Your task to perform on an android device: turn on javascript in the chrome app Image 0: 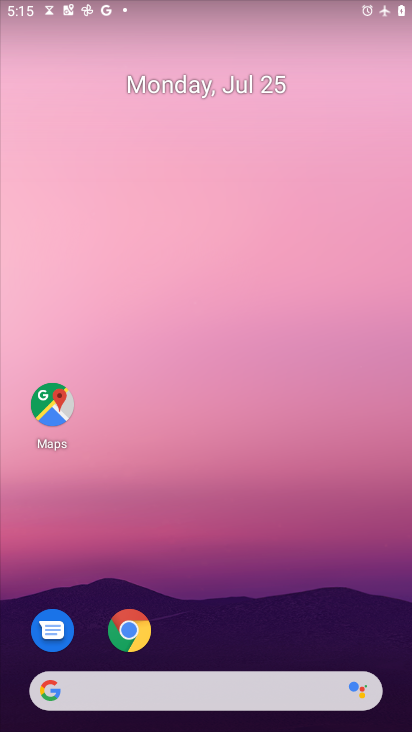
Step 0: click (130, 631)
Your task to perform on an android device: turn on javascript in the chrome app Image 1: 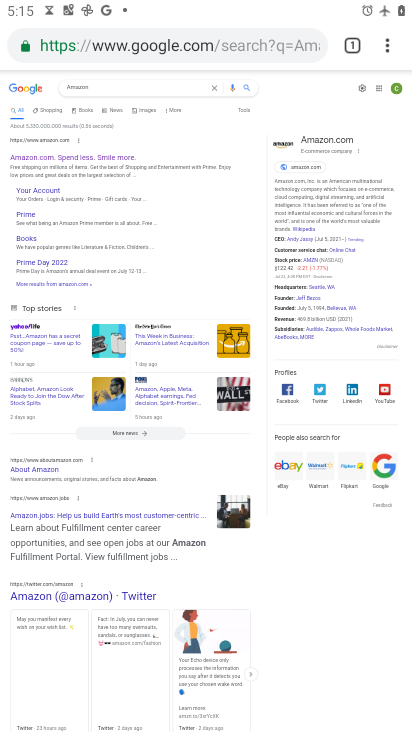
Step 1: click (387, 49)
Your task to perform on an android device: turn on javascript in the chrome app Image 2: 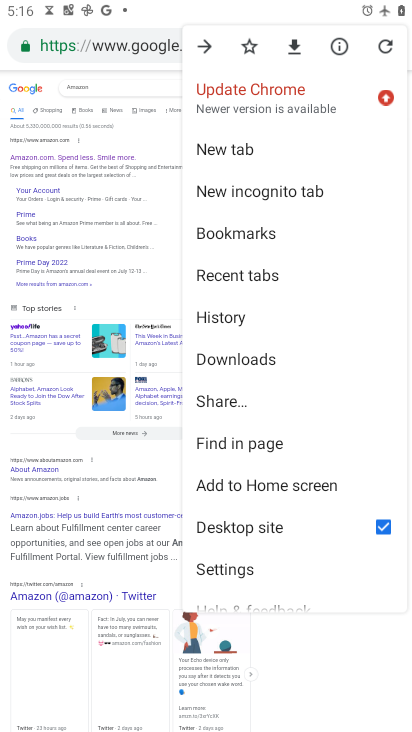
Step 2: click (229, 568)
Your task to perform on an android device: turn on javascript in the chrome app Image 3: 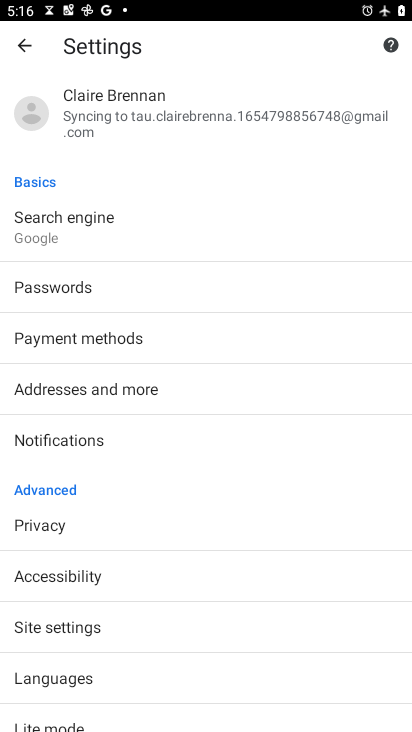
Step 3: drag from (69, 600) to (112, 515)
Your task to perform on an android device: turn on javascript in the chrome app Image 4: 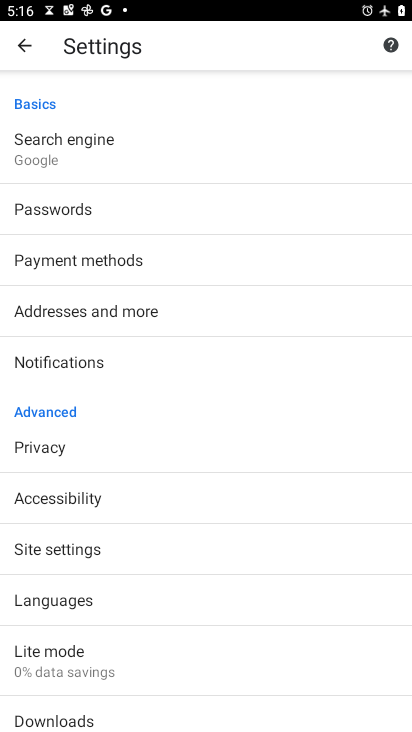
Step 4: click (69, 553)
Your task to perform on an android device: turn on javascript in the chrome app Image 5: 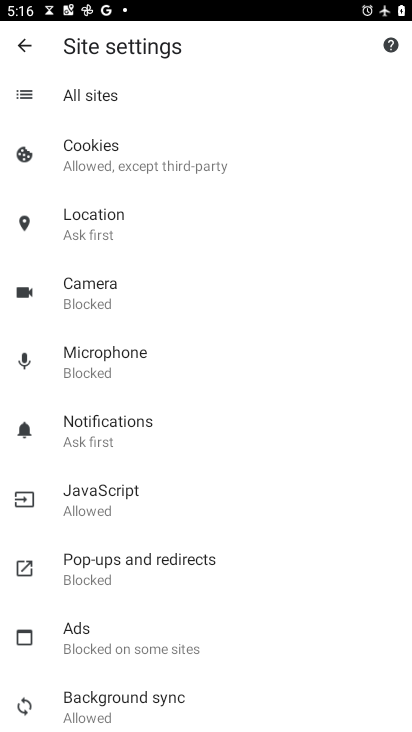
Step 5: click (110, 491)
Your task to perform on an android device: turn on javascript in the chrome app Image 6: 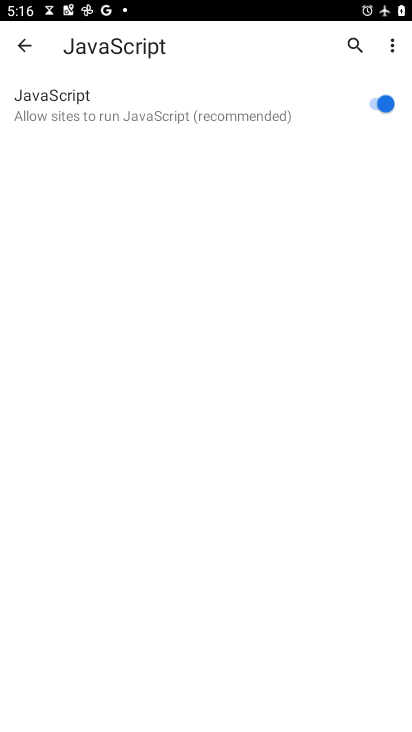
Step 6: task complete